Your task to perform on an android device: When is my next appointment? Image 0: 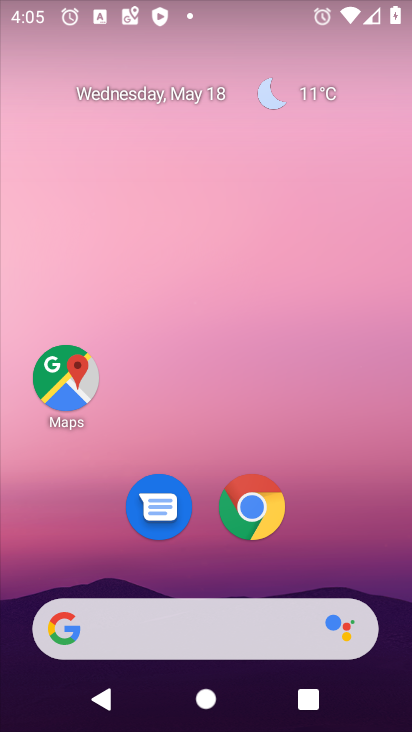
Step 0: drag from (398, 629) to (314, 134)
Your task to perform on an android device: When is my next appointment? Image 1: 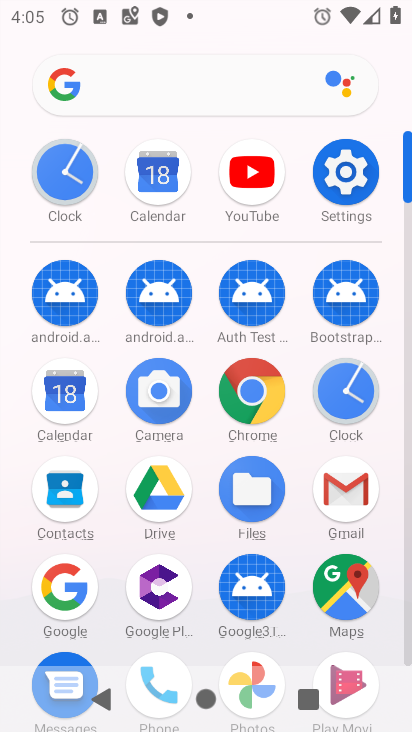
Step 1: click (409, 642)
Your task to perform on an android device: When is my next appointment? Image 2: 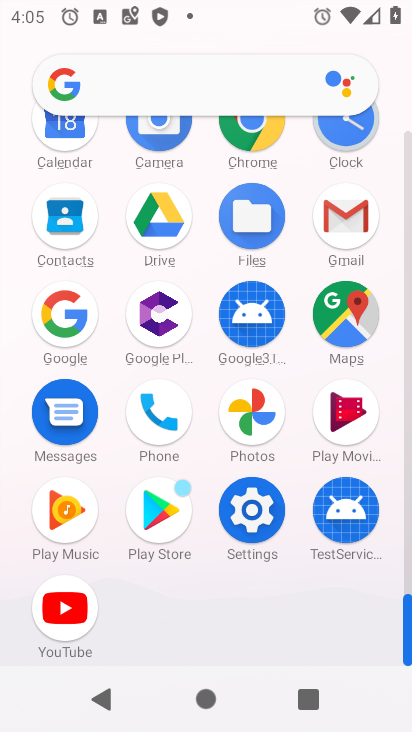
Step 2: click (63, 139)
Your task to perform on an android device: When is my next appointment? Image 3: 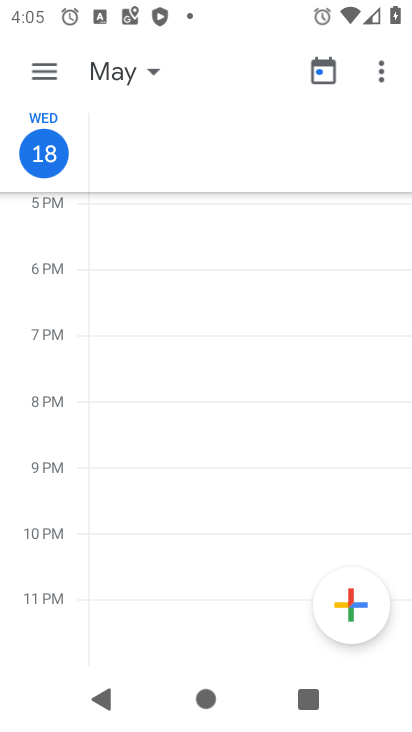
Step 3: drag from (226, 188) to (223, 398)
Your task to perform on an android device: When is my next appointment? Image 4: 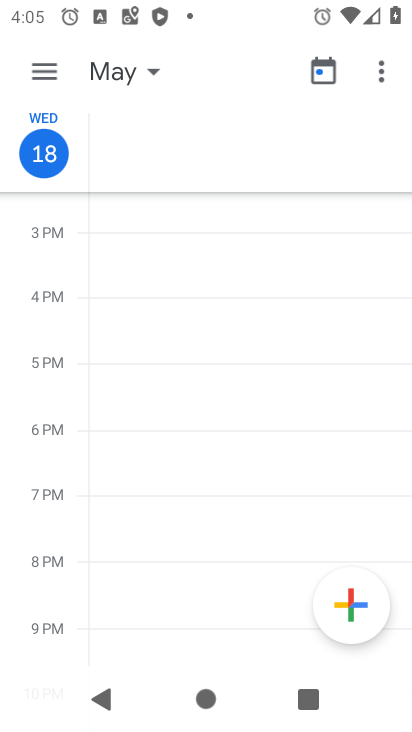
Step 4: click (44, 76)
Your task to perform on an android device: When is my next appointment? Image 5: 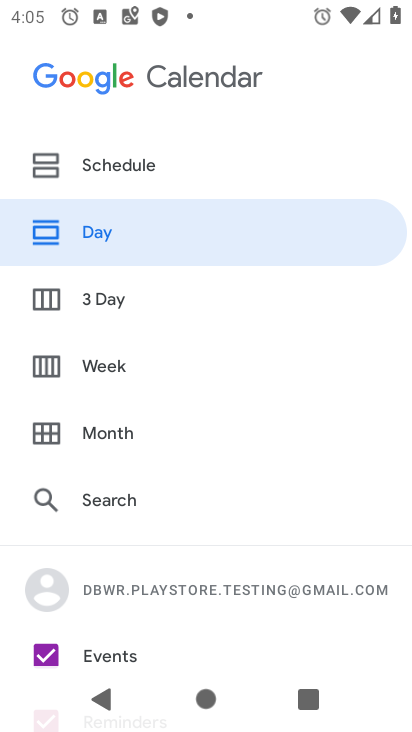
Step 5: click (115, 170)
Your task to perform on an android device: When is my next appointment? Image 6: 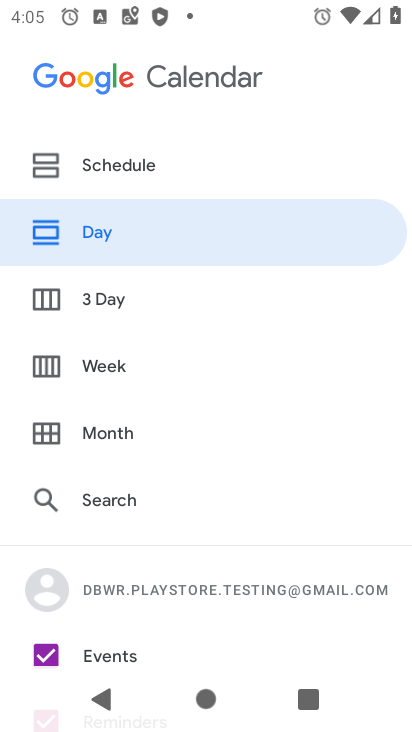
Step 6: click (110, 163)
Your task to perform on an android device: When is my next appointment? Image 7: 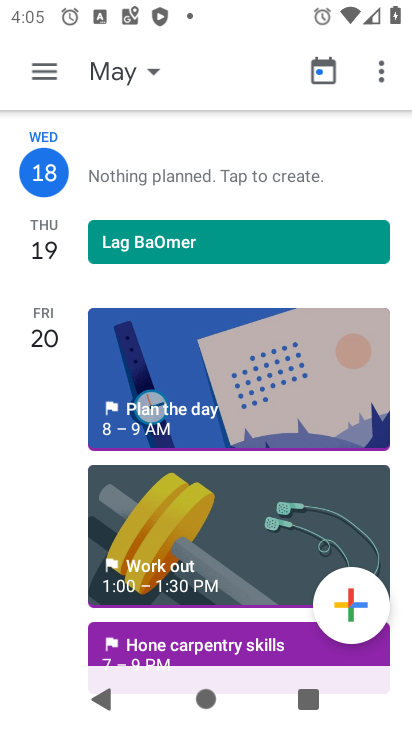
Step 7: task complete